Your task to perform on an android device: Search for hotels in Chicago Image 0: 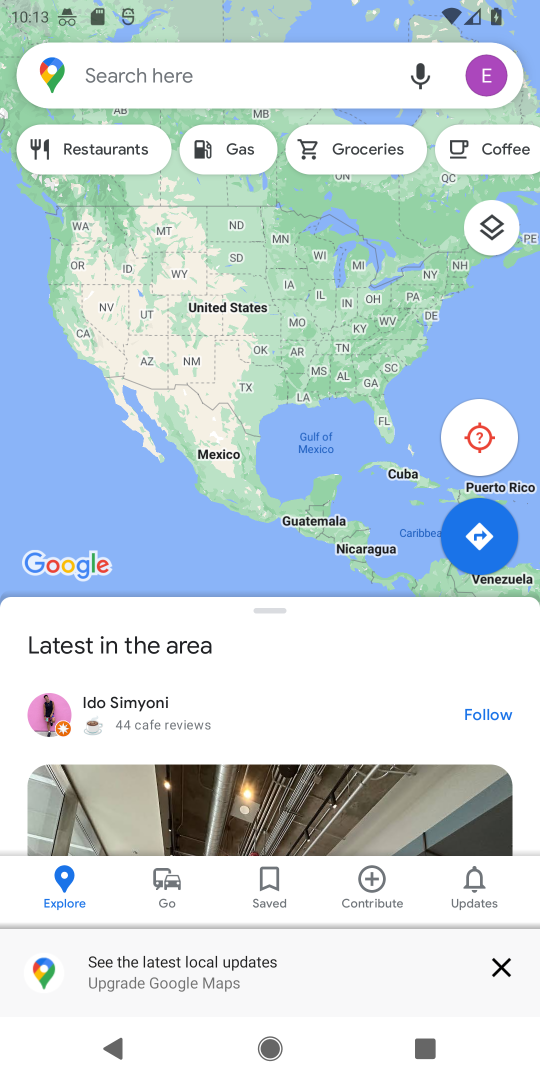
Step 0: press home button
Your task to perform on an android device: Search for hotels in Chicago Image 1: 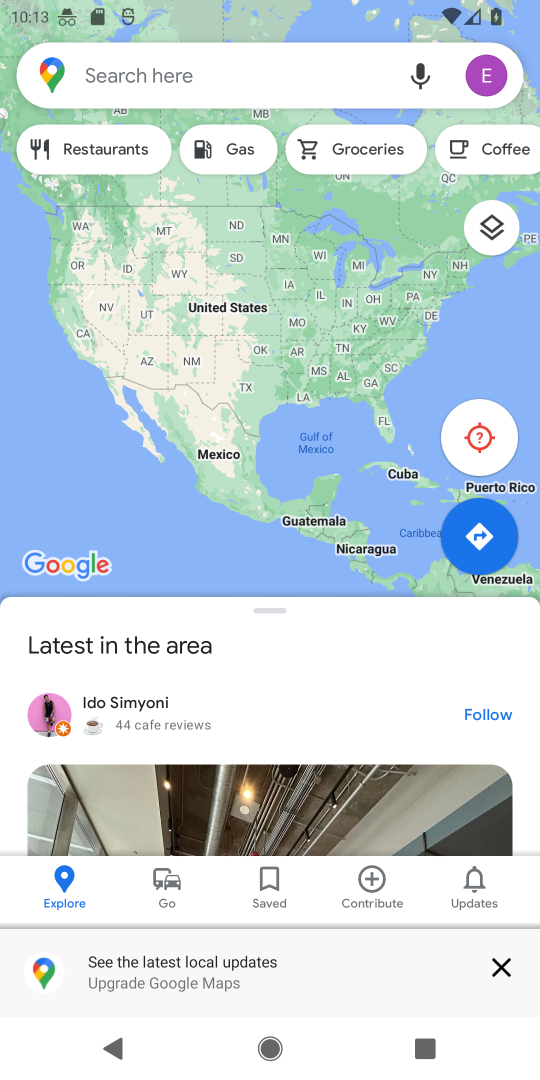
Step 1: press home button
Your task to perform on an android device: Search for hotels in Chicago Image 2: 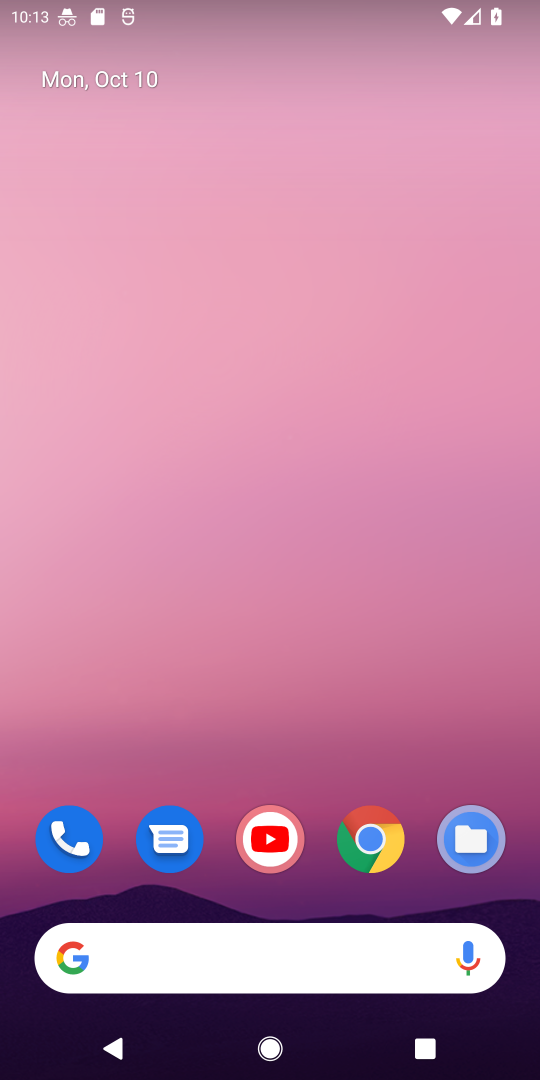
Step 2: drag from (329, 907) to (355, 112)
Your task to perform on an android device: Search for hotels in Chicago Image 3: 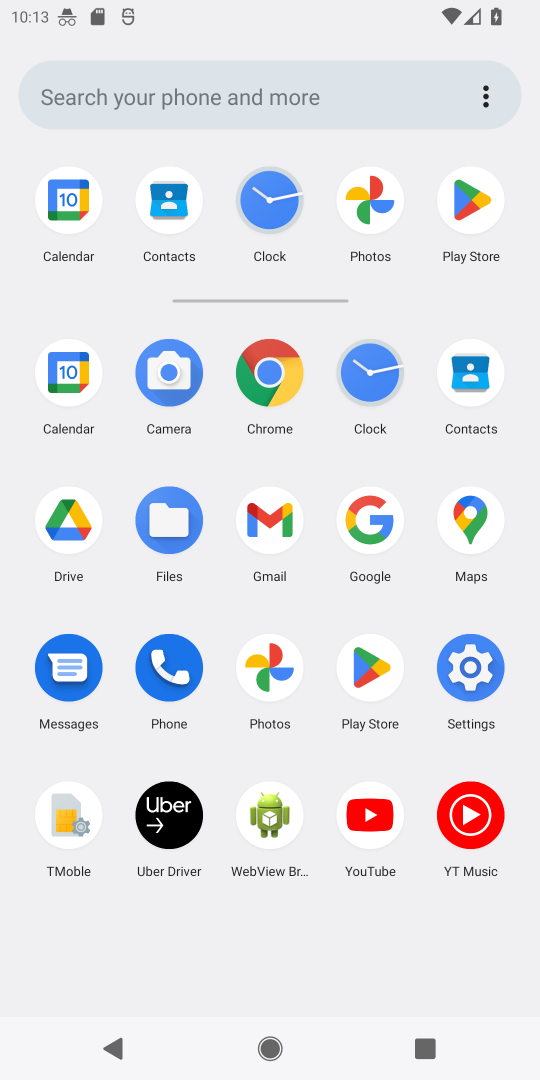
Step 3: click (265, 372)
Your task to perform on an android device: Search for hotels in Chicago Image 4: 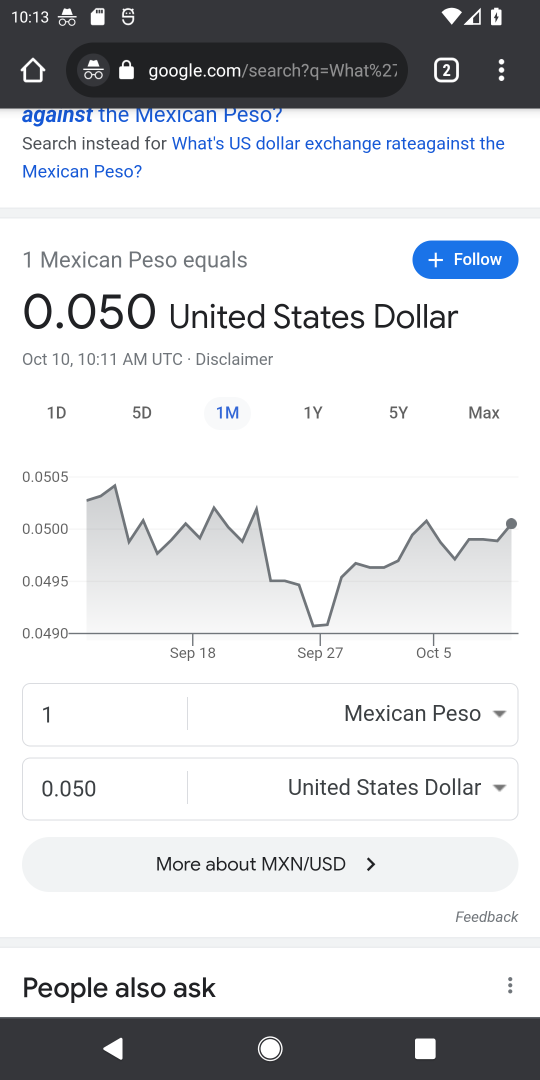
Step 4: click (267, 67)
Your task to perform on an android device: Search for hotels in Chicago Image 5: 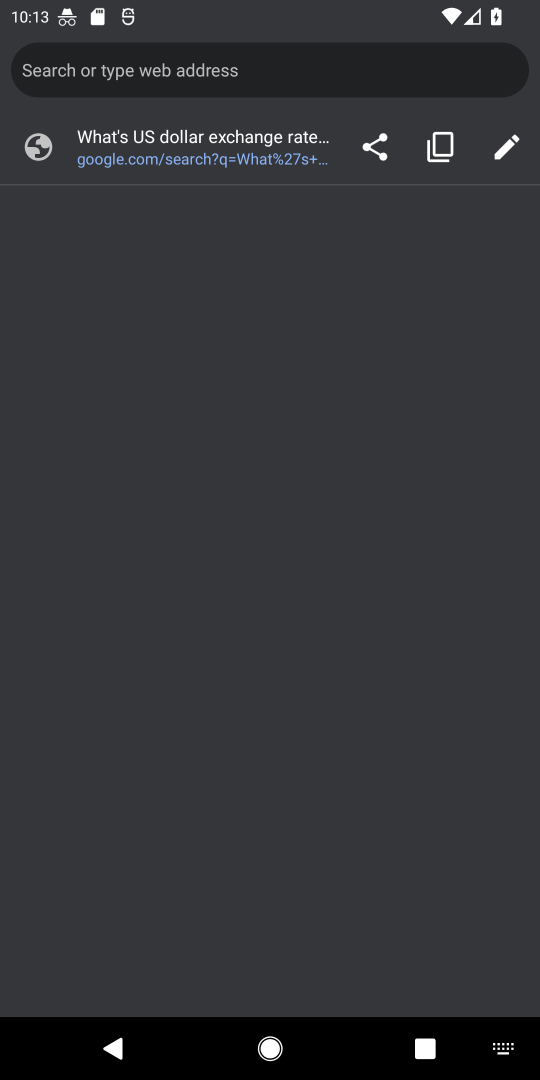
Step 5: type "hotels in Chicago"
Your task to perform on an android device: Search for hotels in Chicago Image 6: 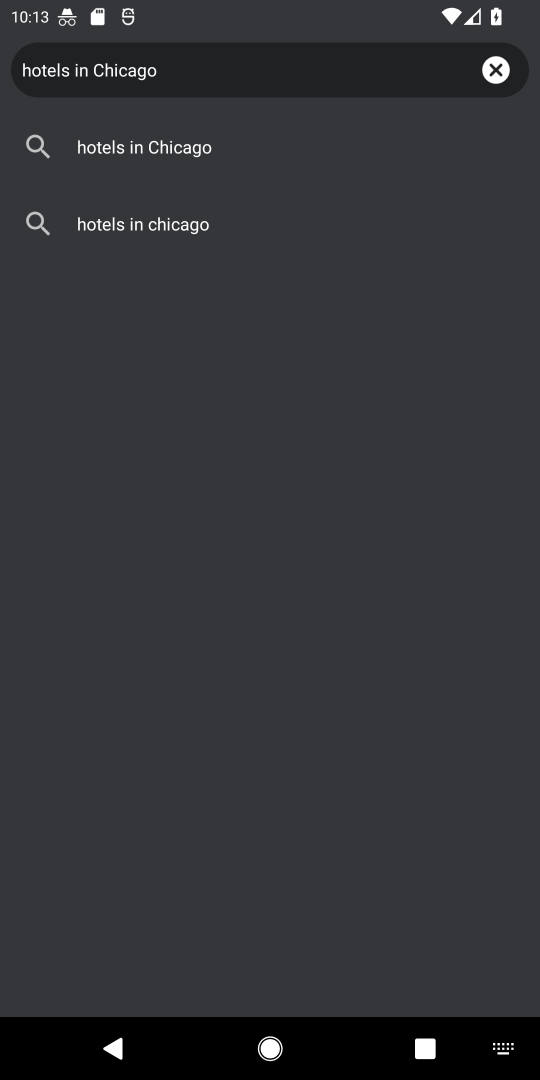
Step 6: press enter
Your task to perform on an android device: Search for hotels in Chicago Image 7: 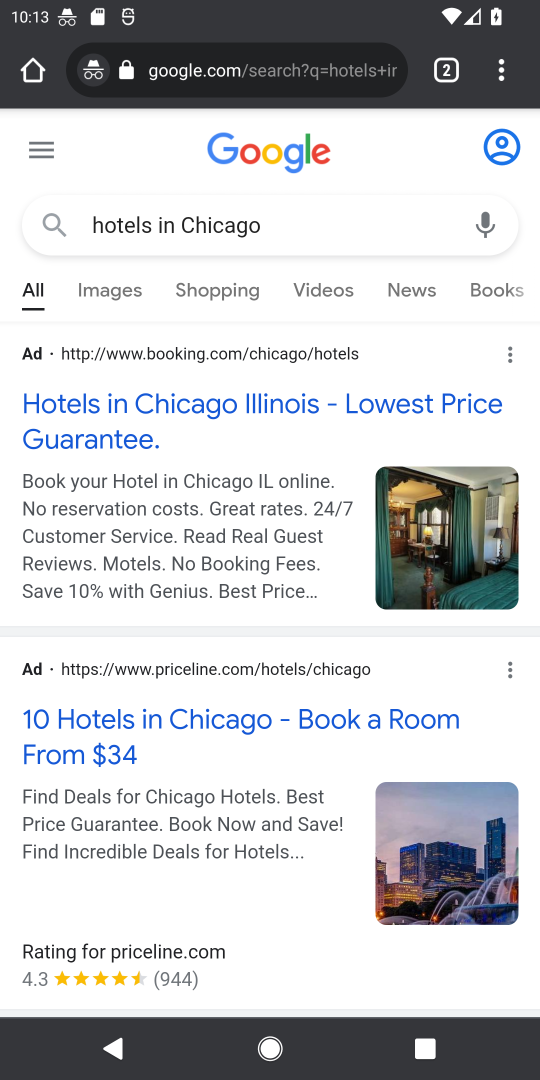
Step 7: task complete